Your task to perform on an android device: check the backup settings in the google photos Image 0: 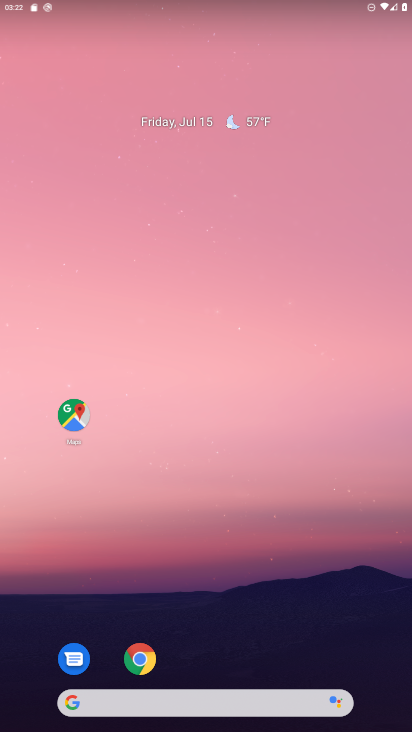
Step 0: drag from (197, 648) to (236, 35)
Your task to perform on an android device: check the backup settings in the google photos Image 1: 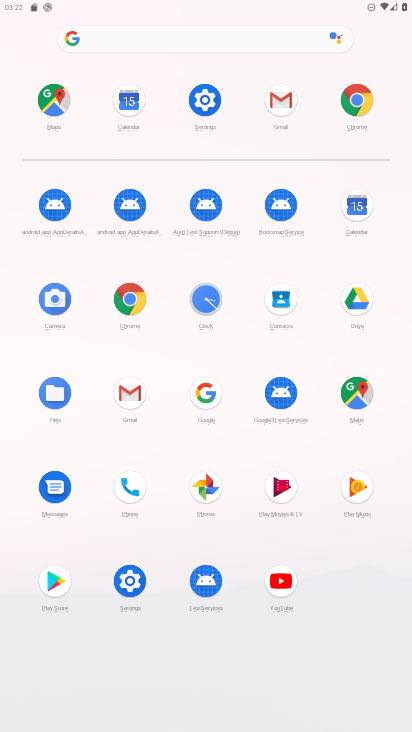
Step 1: click (198, 489)
Your task to perform on an android device: check the backup settings in the google photos Image 2: 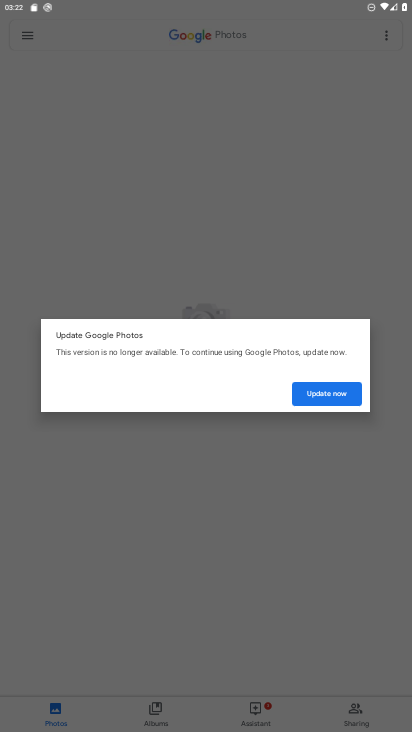
Step 2: click (320, 397)
Your task to perform on an android device: check the backup settings in the google photos Image 3: 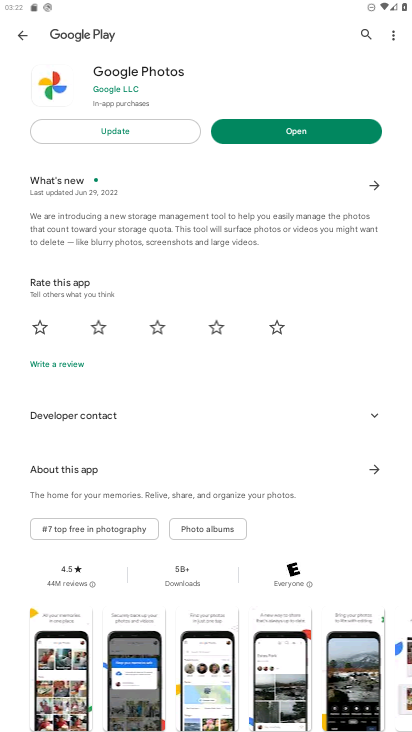
Step 3: click (259, 132)
Your task to perform on an android device: check the backup settings in the google photos Image 4: 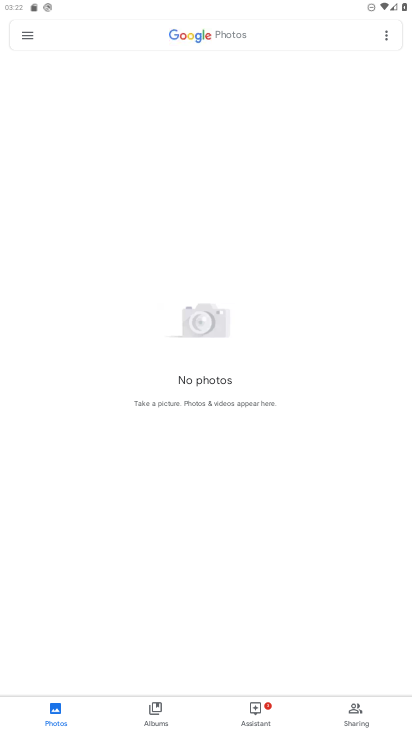
Step 4: click (28, 37)
Your task to perform on an android device: check the backup settings in the google photos Image 5: 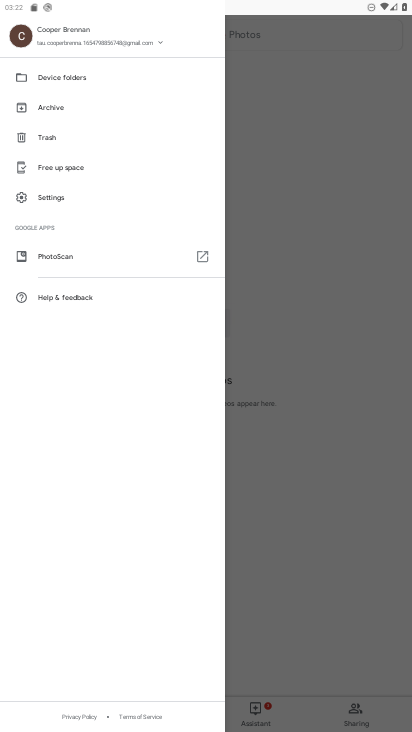
Step 5: click (58, 198)
Your task to perform on an android device: check the backup settings in the google photos Image 6: 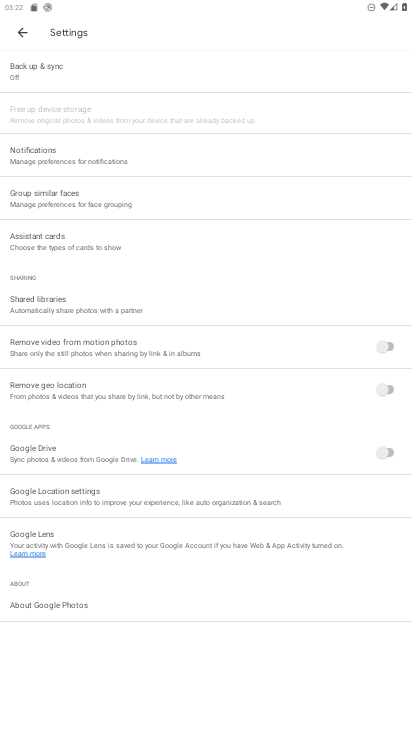
Step 6: click (68, 71)
Your task to perform on an android device: check the backup settings in the google photos Image 7: 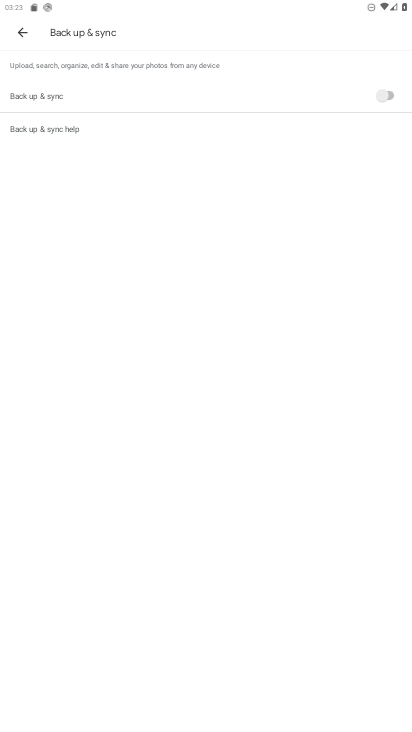
Step 7: task complete